Your task to perform on an android device: change your default location settings in chrome Image 0: 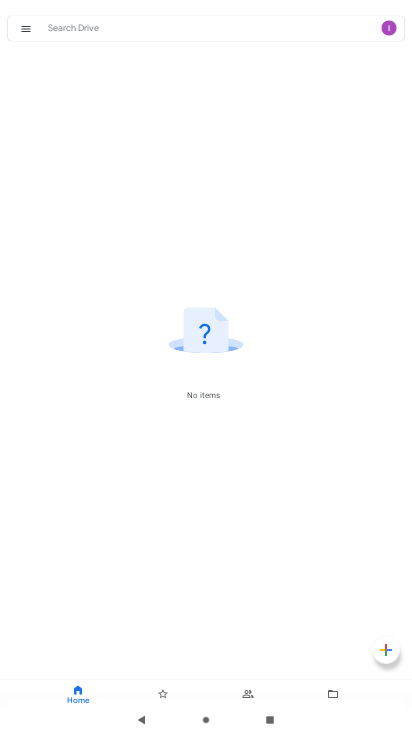
Step 0: press home button
Your task to perform on an android device: change your default location settings in chrome Image 1: 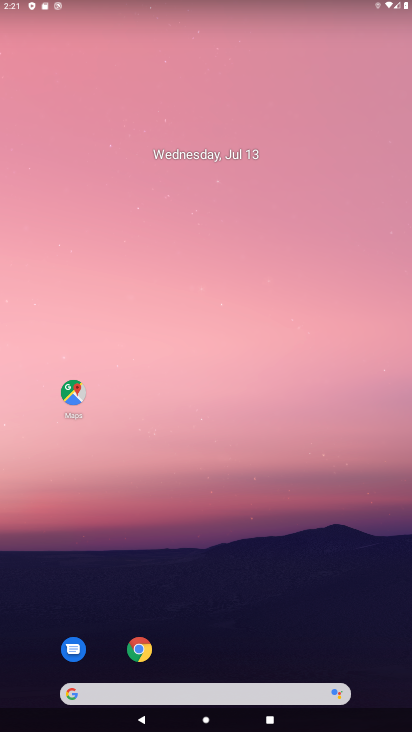
Step 1: click (140, 650)
Your task to perform on an android device: change your default location settings in chrome Image 2: 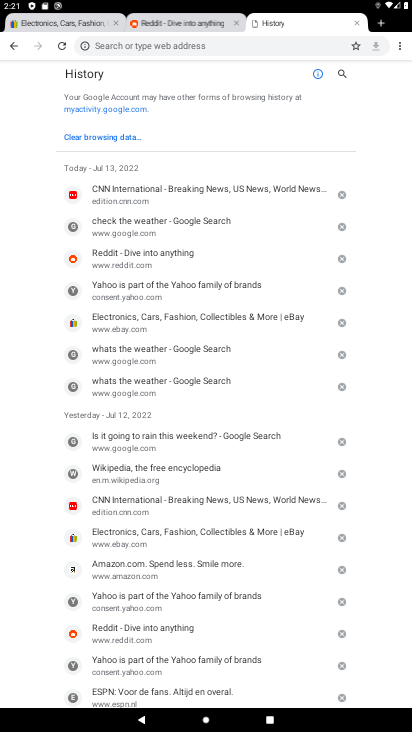
Step 2: click (401, 46)
Your task to perform on an android device: change your default location settings in chrome Image 3: 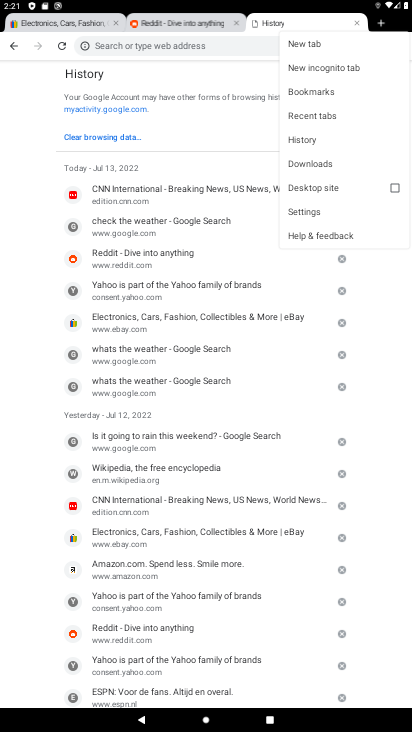
Step 3: click (306, 214)
Your task to perform on an android device: change your default location settings in chrome Image 4: 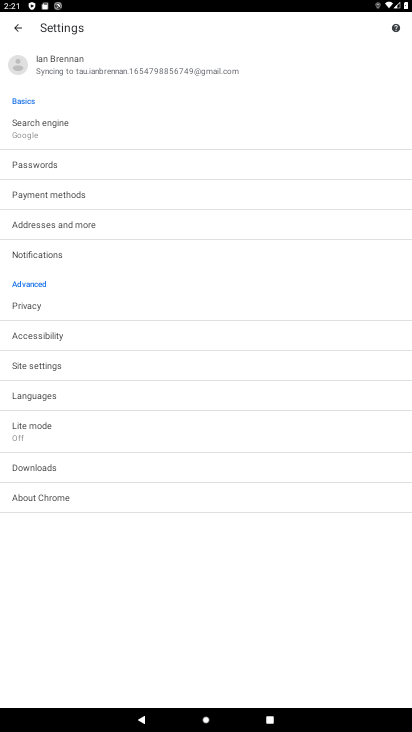
Step 4: click (52, 364)
Your task to perform on an android device: change your default location settings in chrome Image 5: 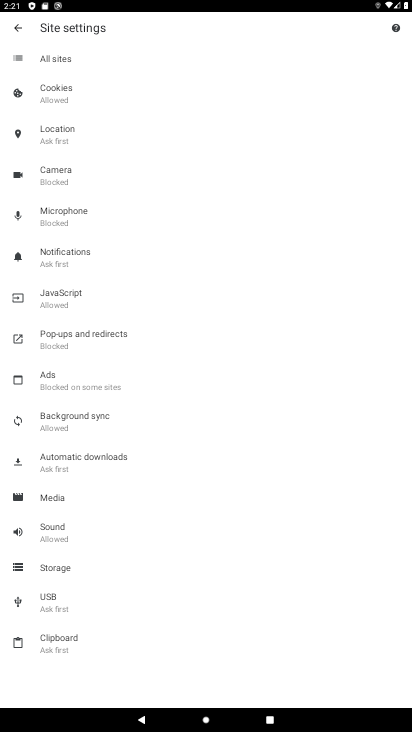
Step 5: click (50, 131)
Your task to perform on an android device: change your default location settings in chrome Image 6: 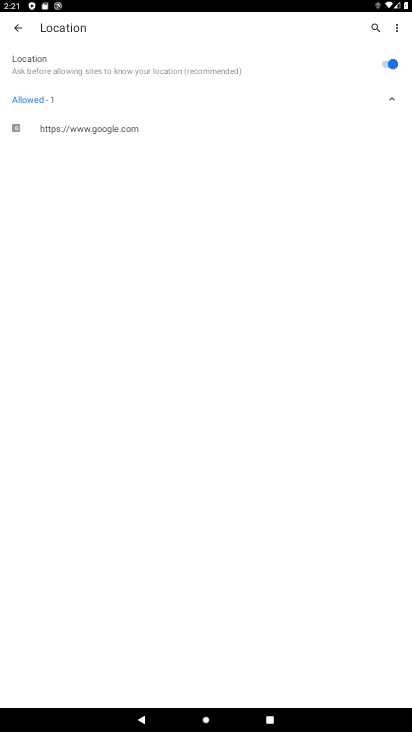
Step 6: click (396, 64)
Your task to perform on an android device: change your default location settings in chrome Image 7: 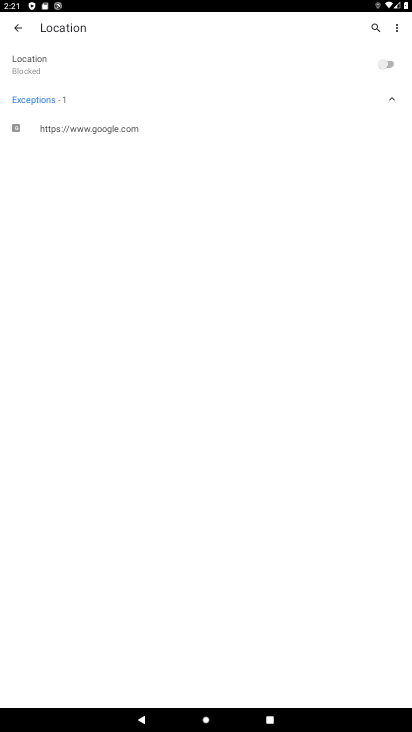
Step 7: task complete